Your task to perform on an android device: Go to privacy settings Image 0: 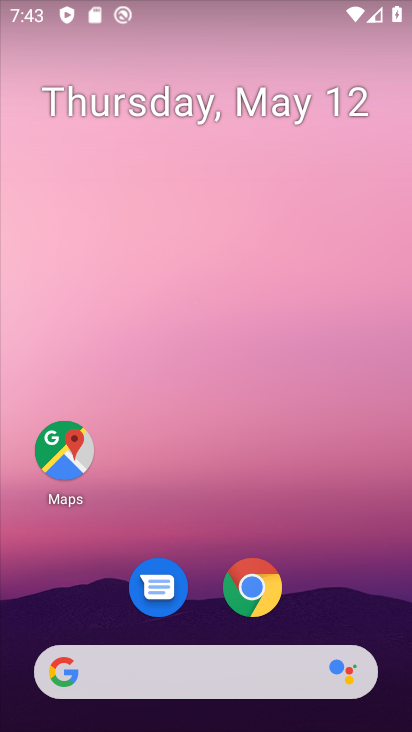
Step 0: drag from (313, 565) to (320, 209)
Your task to perform on an android device: Go to privacy settings Image 1: 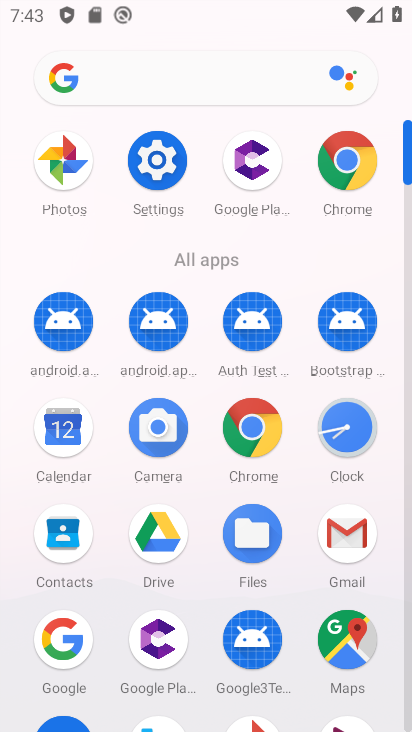
Step 1: click (144, 135)
Your task to perform on an android device: Go to privacy settings Image 2: 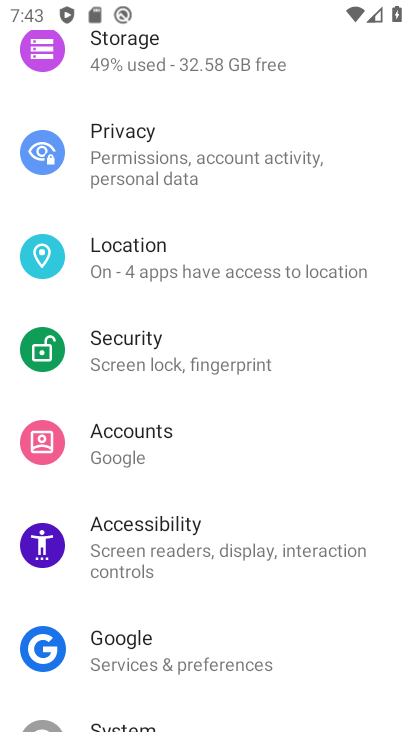
Step 2: click (174, 160)
Your task to perform on an android device: Go to privacy settings Image 3: 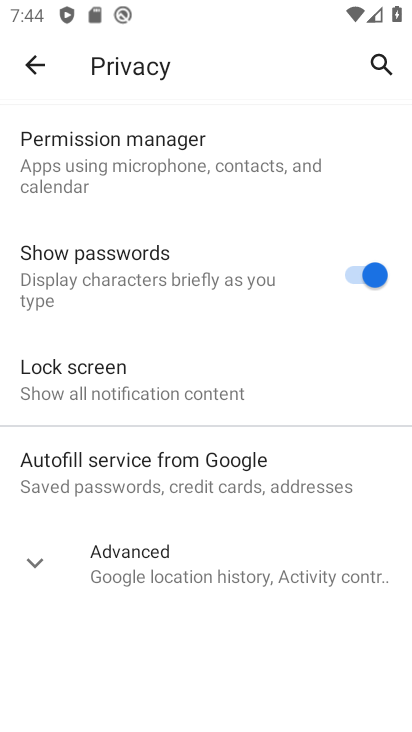
Step 3: task complete